Your task to perform on an android device: turn on bluetooth scan Image 0: 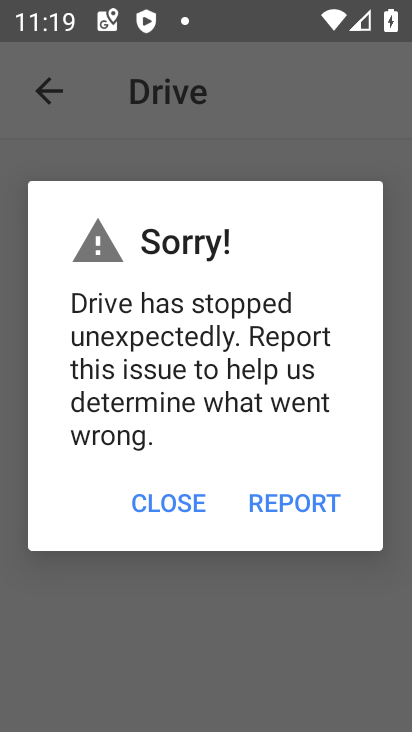
Step 0: press home button
Your task to perform on an android device: turn on bluetooth scan Image 1: 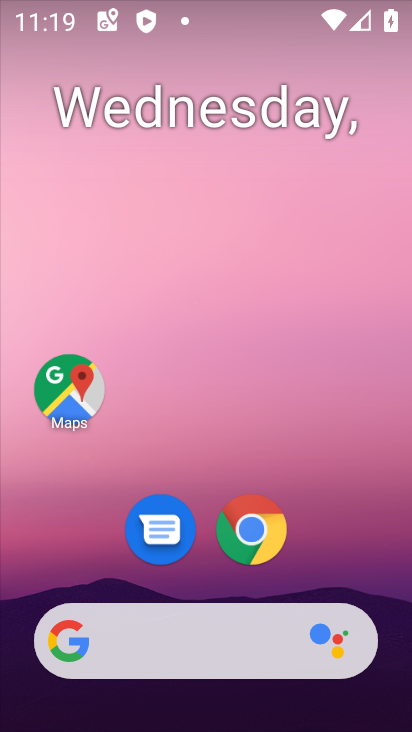
Step 1: drag from (171, 606) to (355, 169)
Your task to perform on an android device: turn on bluetooth scan Image 2: 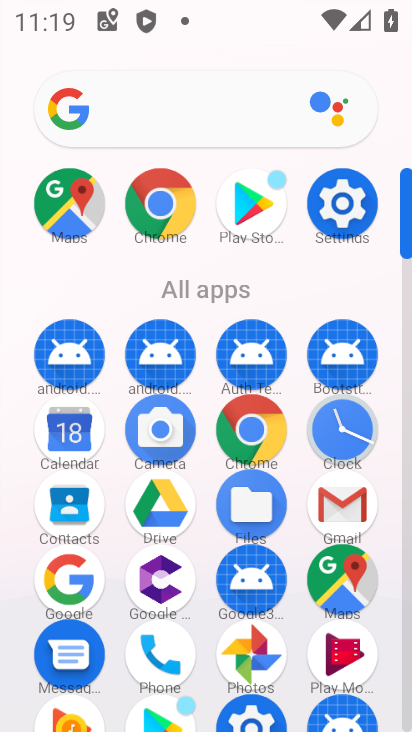
Step 2: click (328, 203)
Your task to perform on an android device: turn on bluetooth scan Image 3: 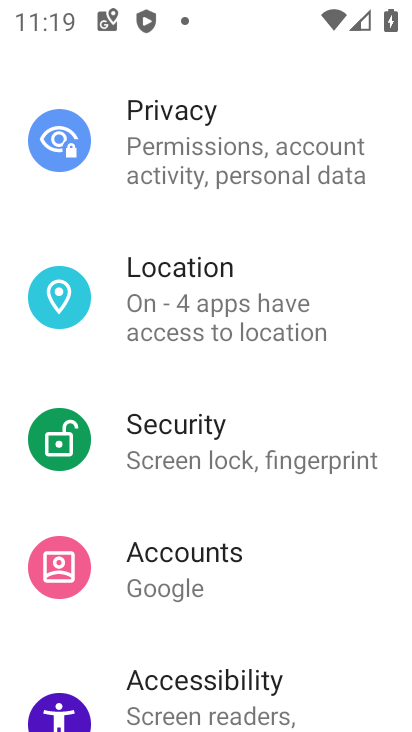
Step 3: click (178, 319)
Your task to perform on an android device: turn on bluetooth scan Image 4: 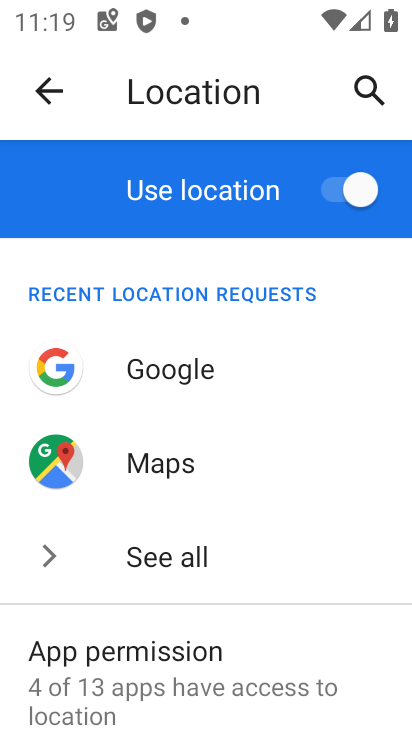
Step 4: drag from (196, 662) to (196, 208)
Your task to perform on an android device: turn on bluetooth scan Image 5: 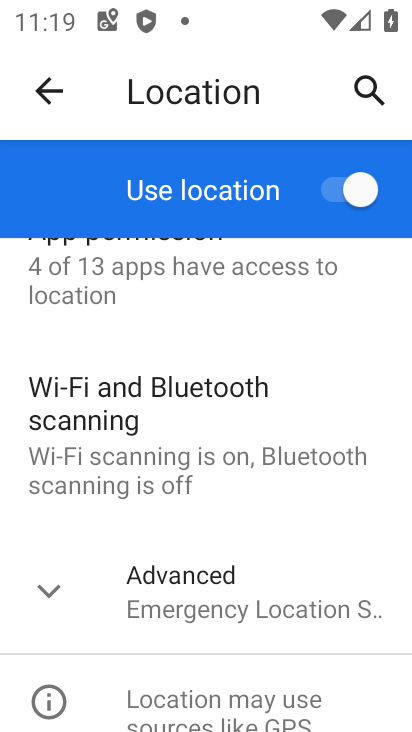
Step 5: click (176, 471)
Your task to perform on an android device: turn on bluetooth scan Image 6: 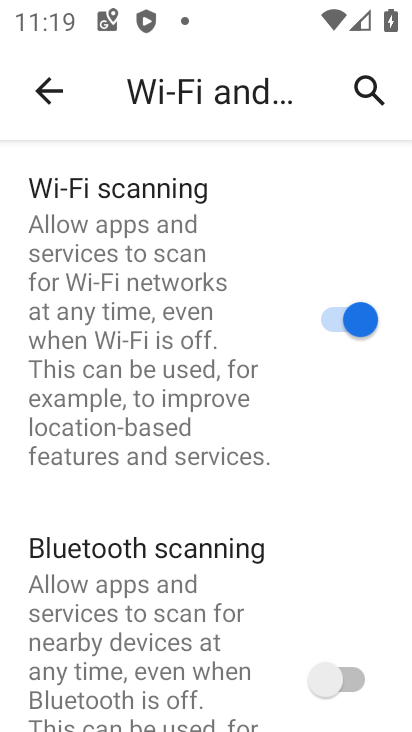
Step 6: click (344, 663)
Your task to perform on an android device: turn on bluetooth scan Image 7: 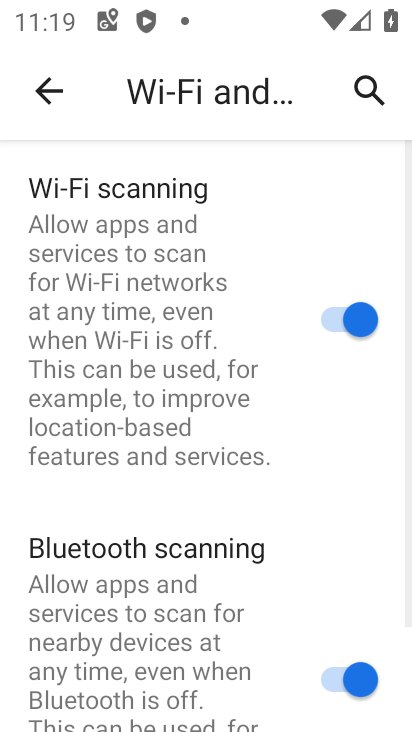
Step 7: task complete